Your task to perform on an android device: find snoozed emails in the gmail app Image 0: 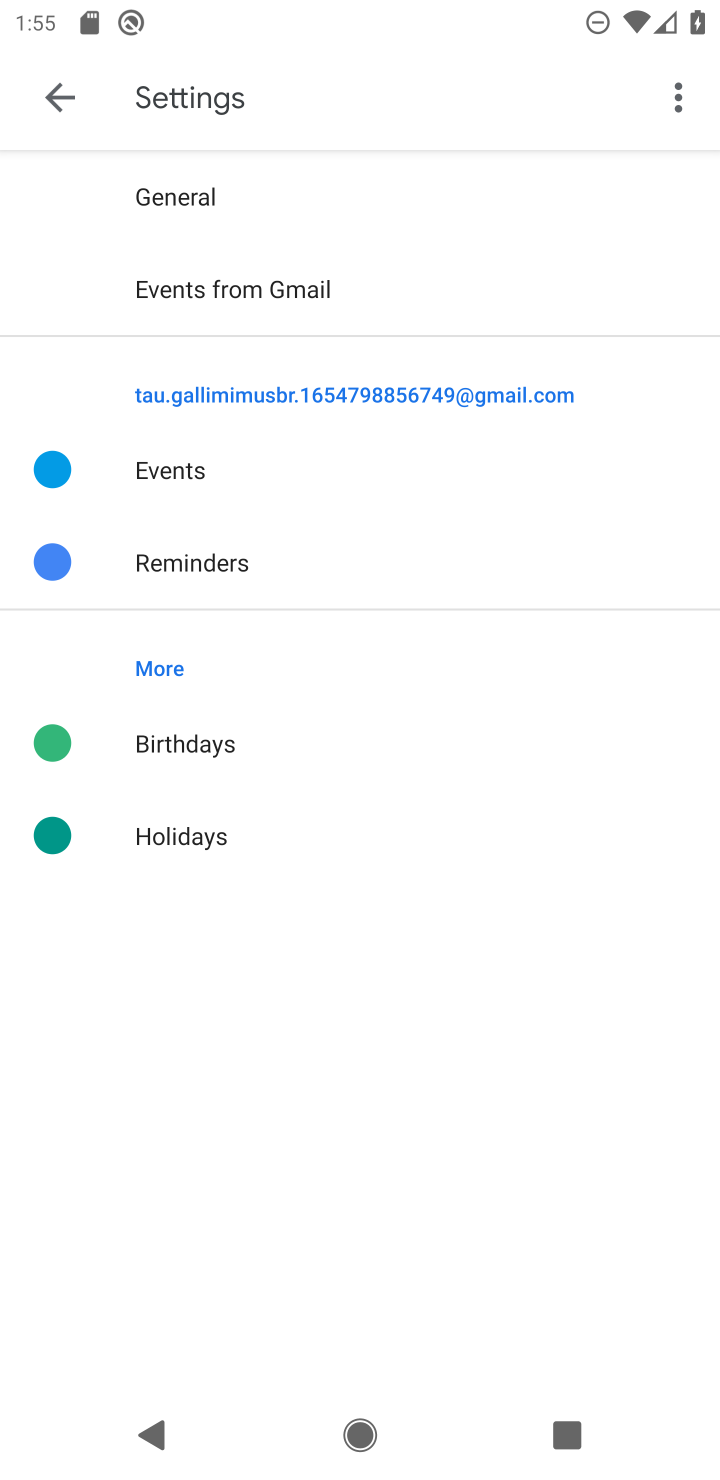
Step 0: press home button
Your task to perform on an android device: find snoozed emails in the gmail app Image 1: 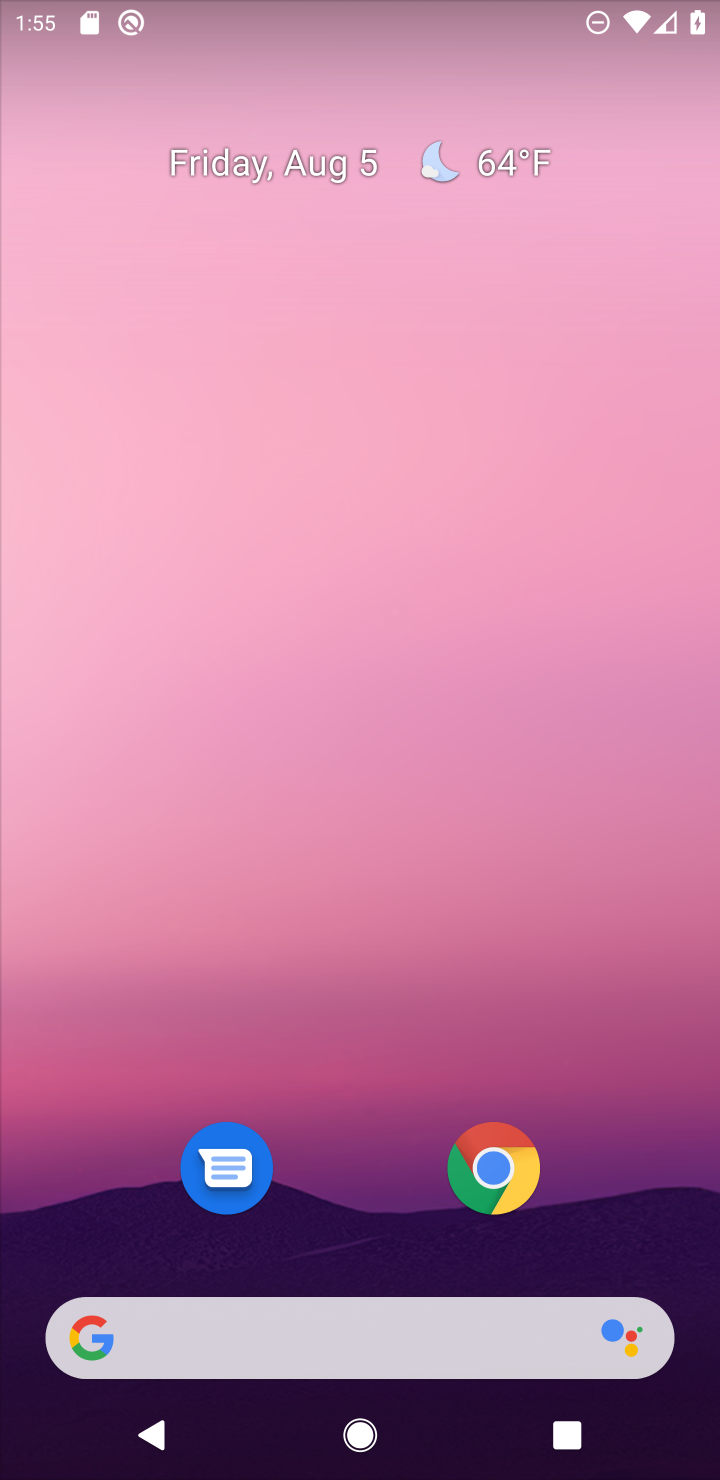
Step 1: drag from (642, 1023) to (397, 146)
Your task to perform on an android device: find snoozed emails in the gmail app Image 2: 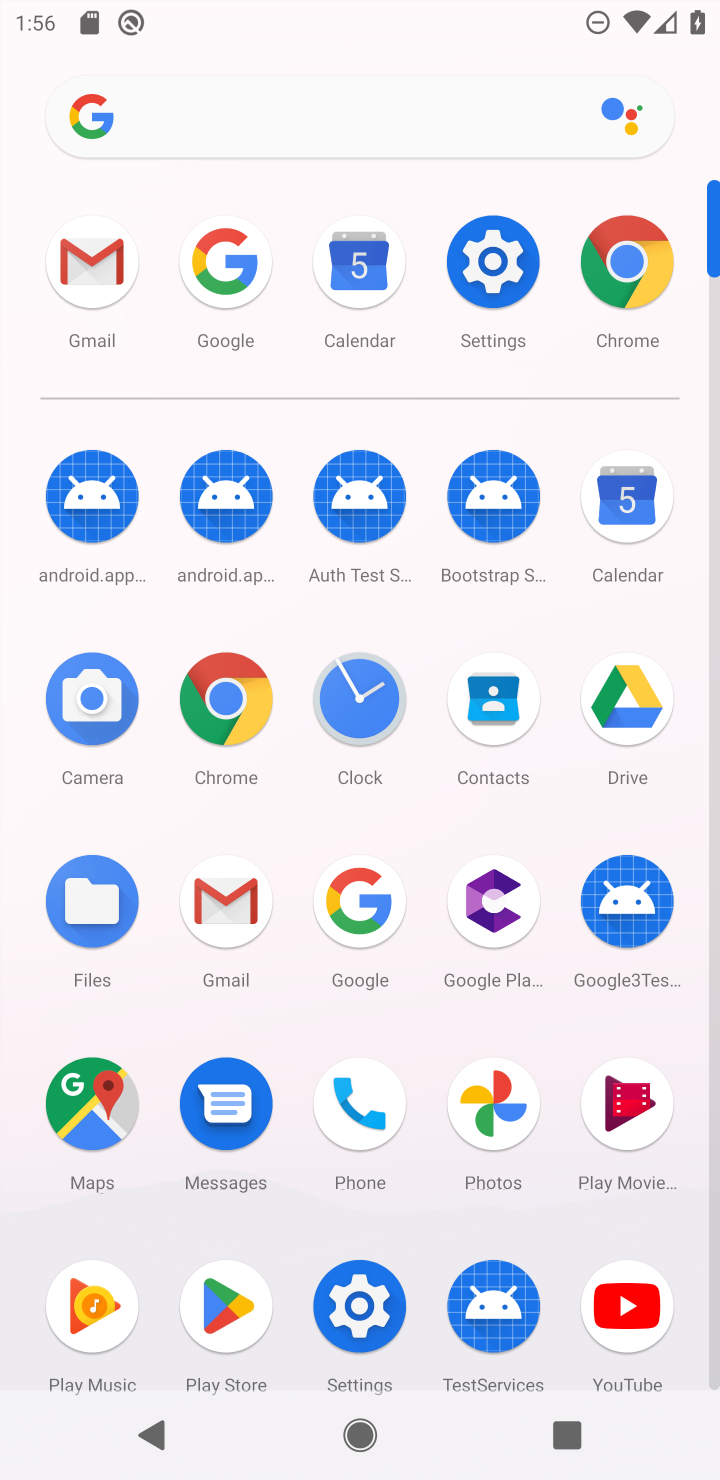
Step 2: click (204, 905)
Your task to perform on an android device: find snoozed emails in the gmail app Image 3: 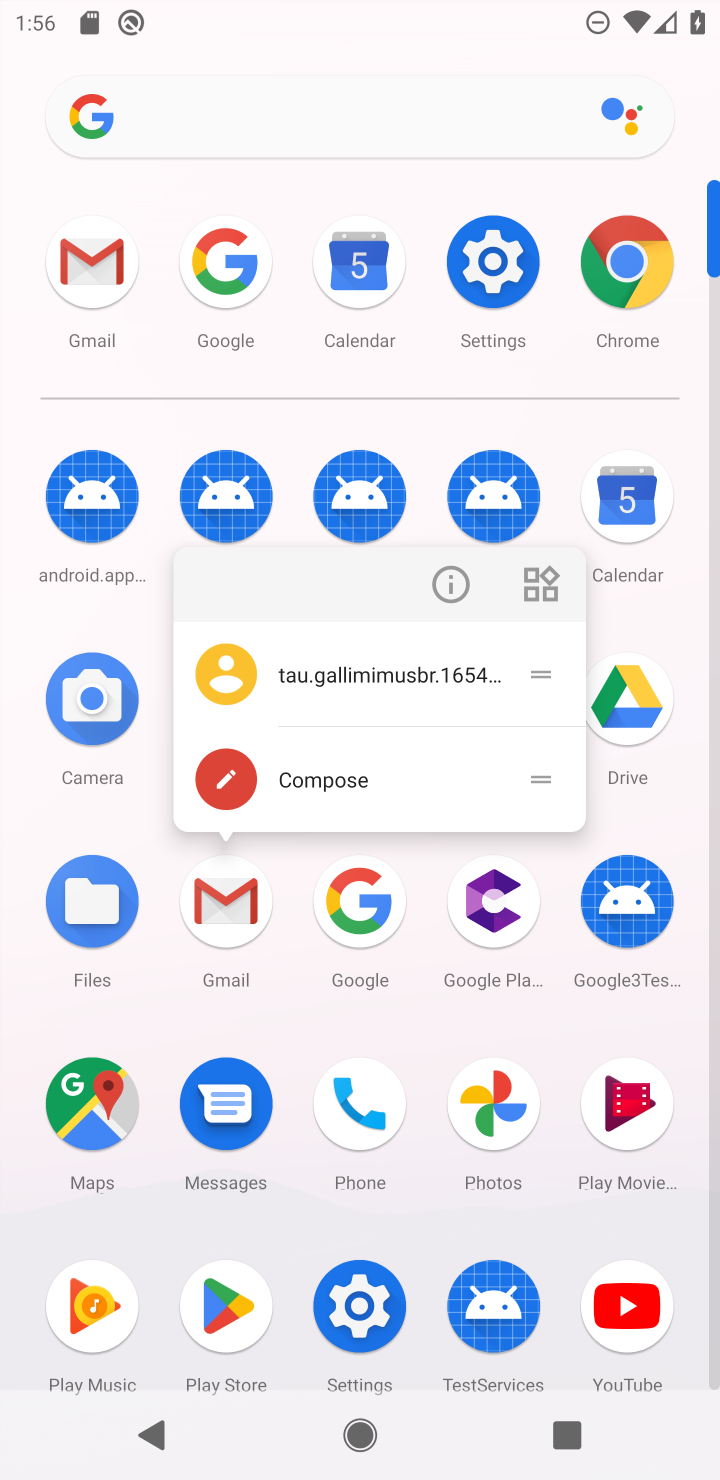
Step 3: click (204, 905)
Your task to perform on an android device: find snoozed emails in the gmail app Image 4: 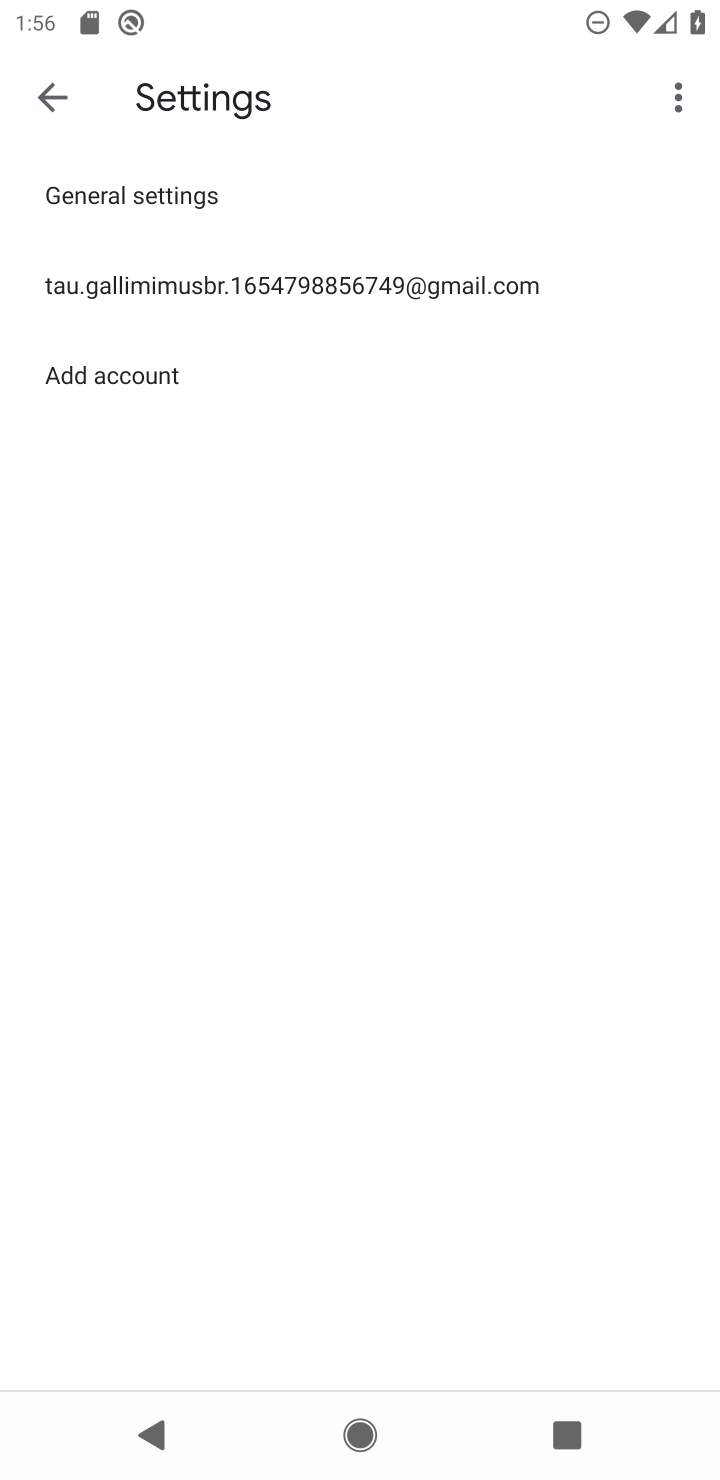
Step 4: task complete